Your task to perform on an android device: Go to notification settings Image 0: 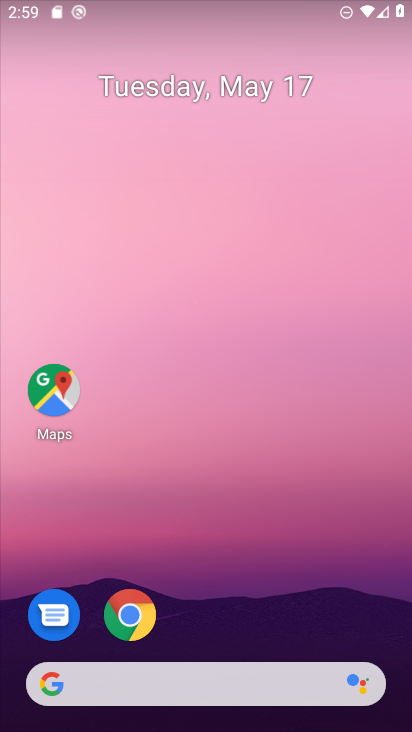
Step 0: drag from (211, 725) to (205, 221)
Your task to perform on an android device: Go to notification settings Image 1: 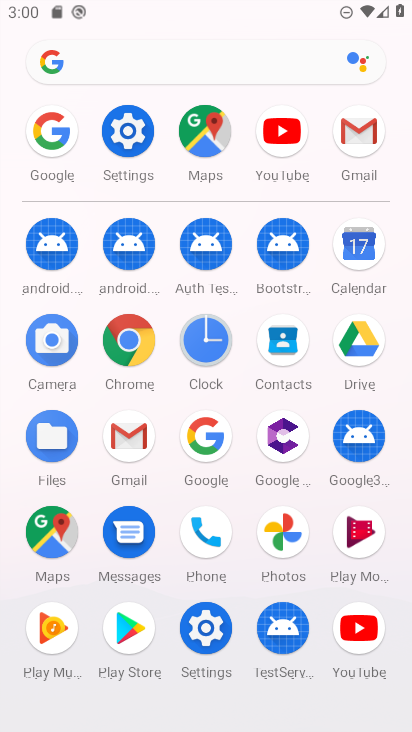
Step 1: click (122, 128)
Your task to perform on an android device: Go to notification settings Image 2: 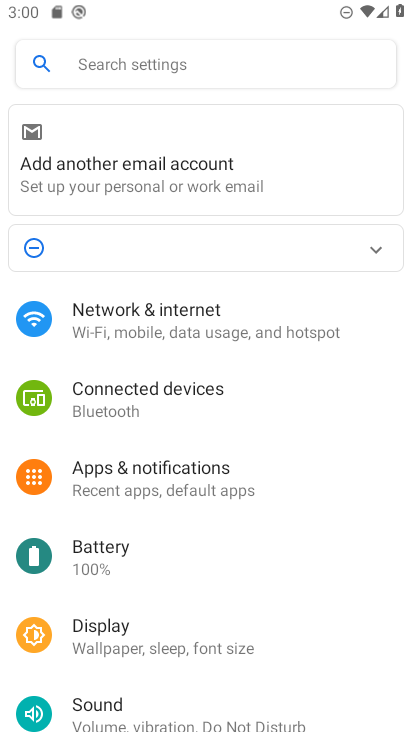
Step 2: click (168, 470)
Your task to perform on an android device: Go to notification settings Image 3: 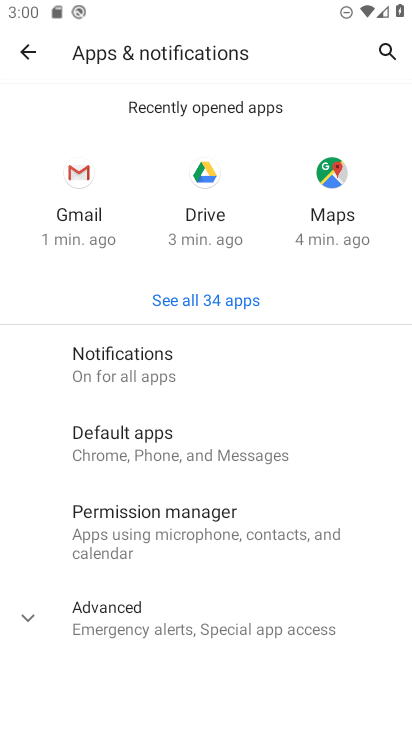
Step 3: click (129, 361)
Your task to perform on an android device: Go to notification settings Image 4: 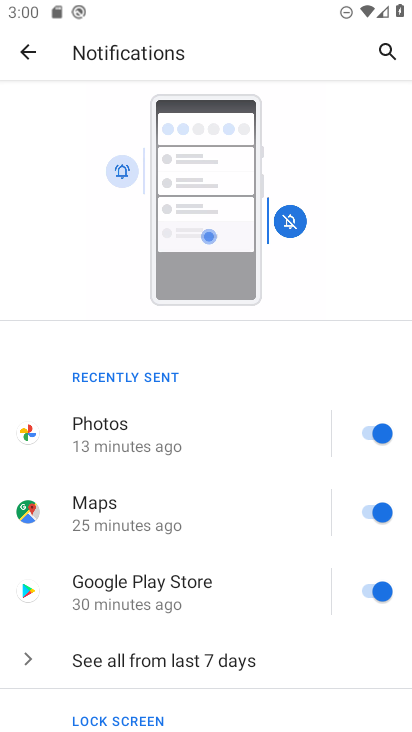
Step 4: task complete